Your task to perform on an android device: Toggle the flashlight Image 0: 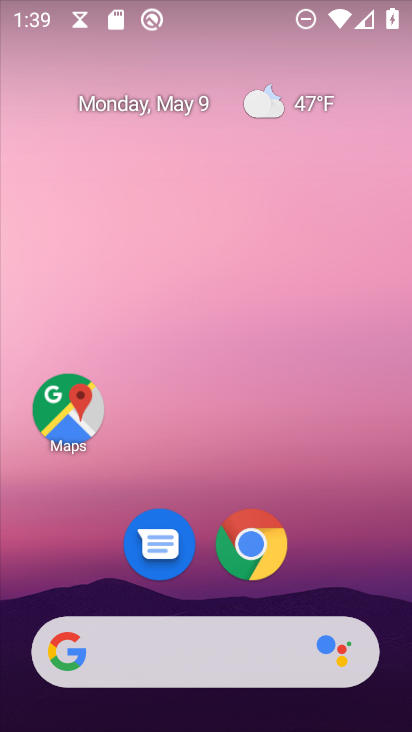
Step 0: drag from (372, 571) to (411, 143)
Your task to perform on an android device: Toggle the flashlight Image 1: 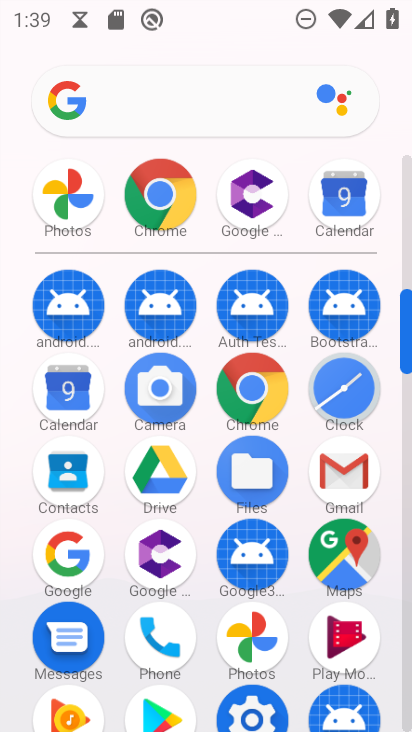
Step 1: click (250, 715)
Your task to perform on an android device: Toggle the flashlight Image 2: 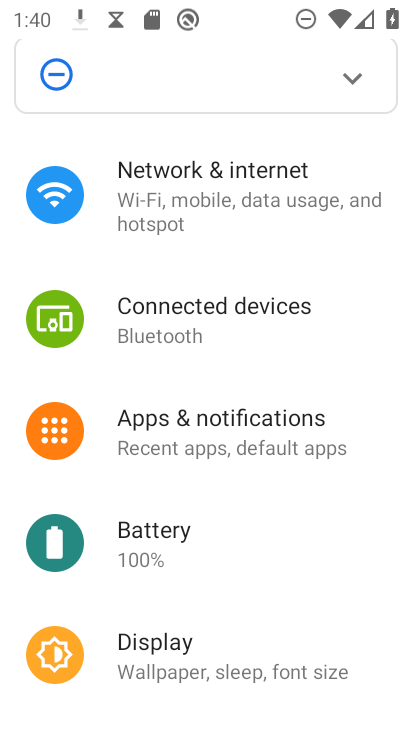
Step 2: task complete